Your task to perform on an android device: Clear the shopping cart on walmart.com. Add "logitech g903" to the cart on walmart.com, then select checkout. Image 0: 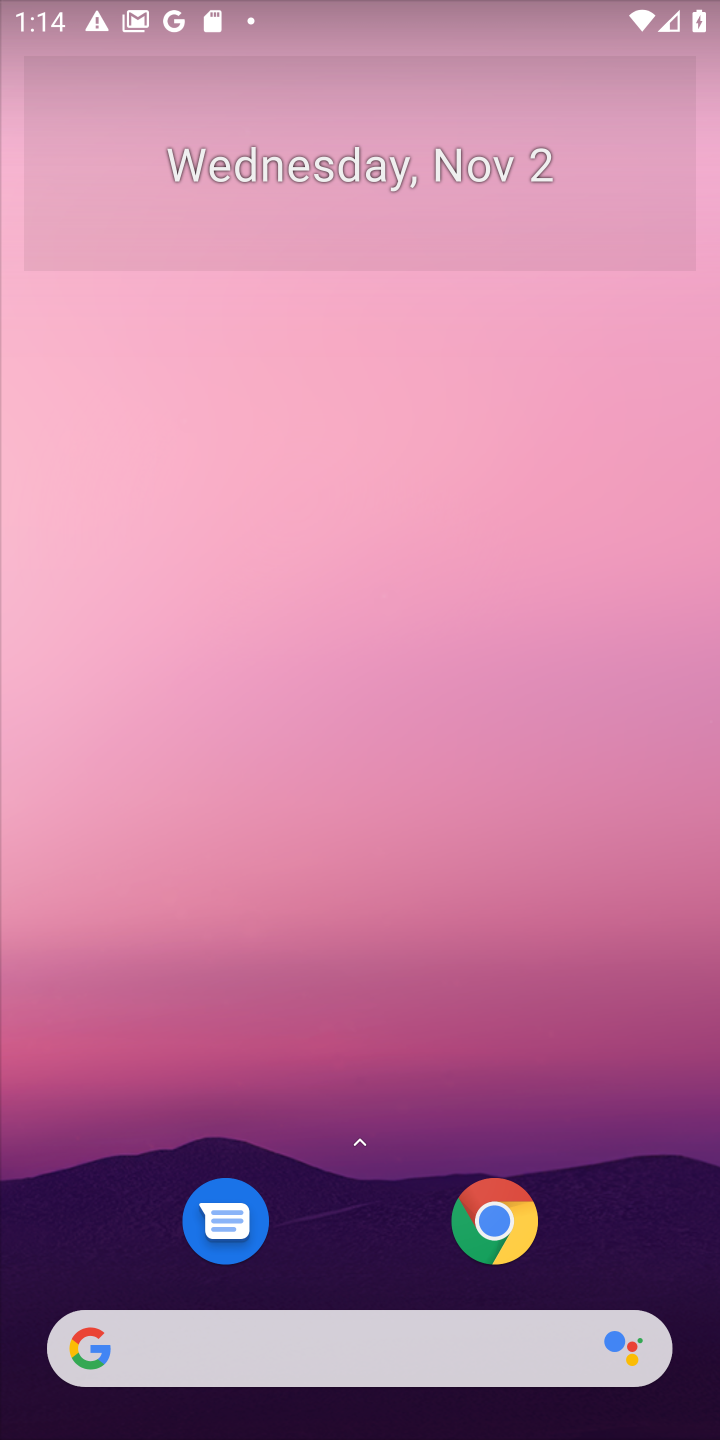
Step 0: click (407, 1335)
Your task to perform on an android device: Clear the shopping cart on walmart.com. Add "logitech g903" to the cart on walmart.com, then select checkout. Image 1: 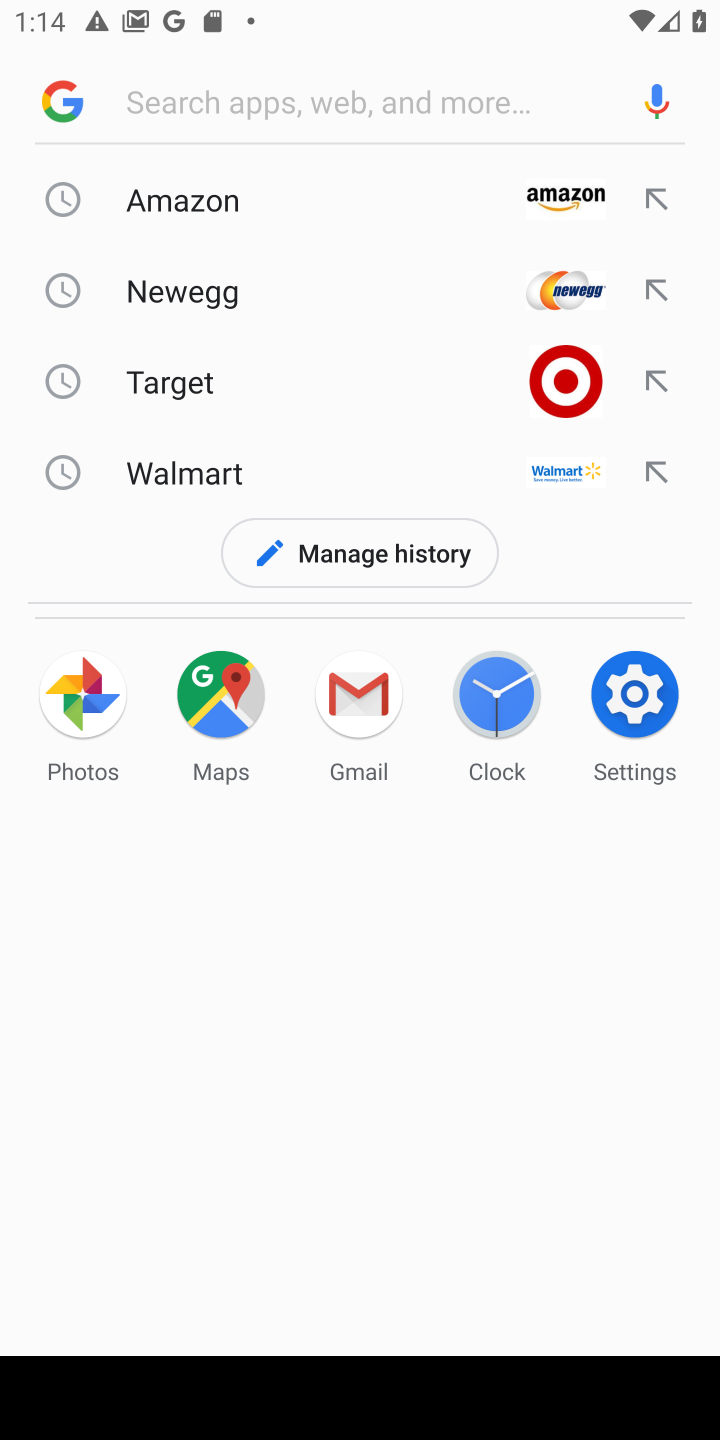
Step 1: click (266, 465)
Your task to perform on an android device: Clear the shopping cart on walmart.com. Add "logitech g903" to the cart on walmart.com, then select checkout. Image 2: 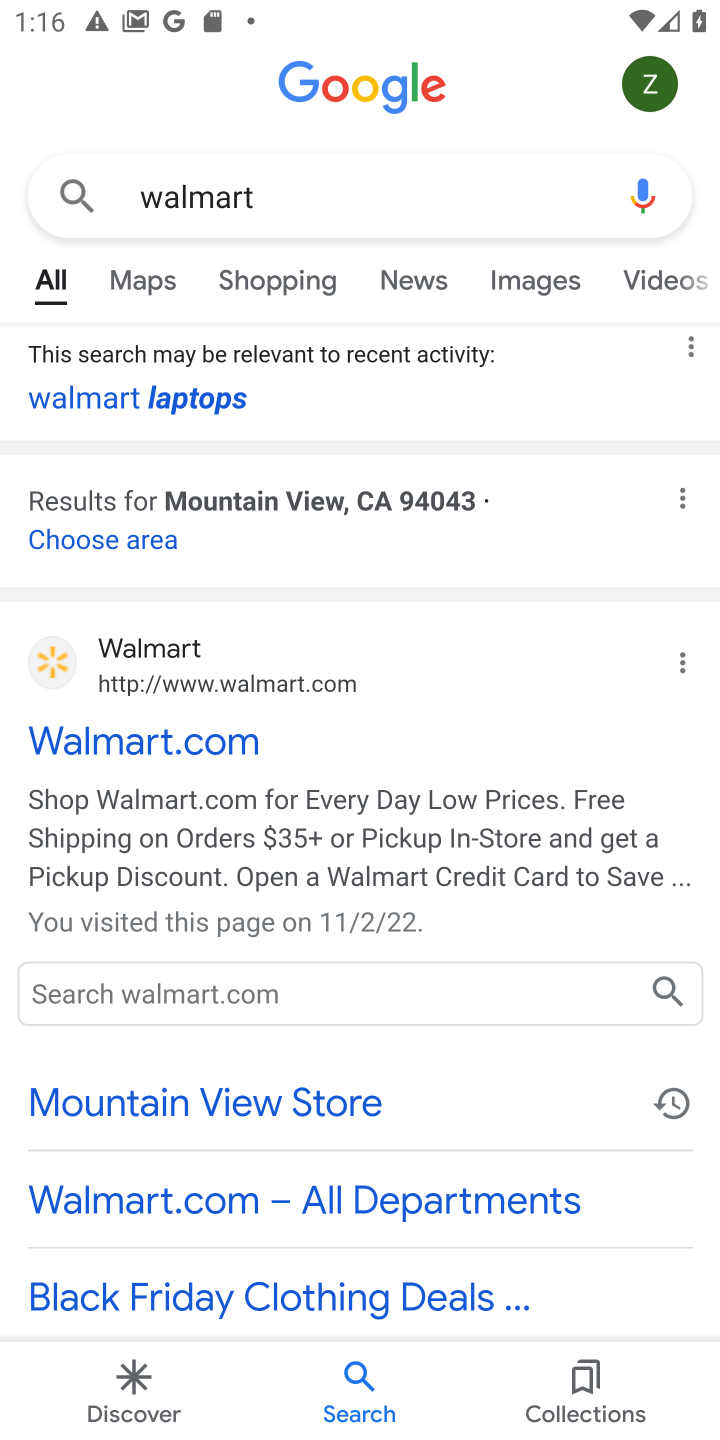
Step 2: click (124, 719)
Your task to perform on an android device: Clear the shopping cart on walmart.com. Add "logitech g903" to the cart on walmart.com, then select checkout. Image 3: 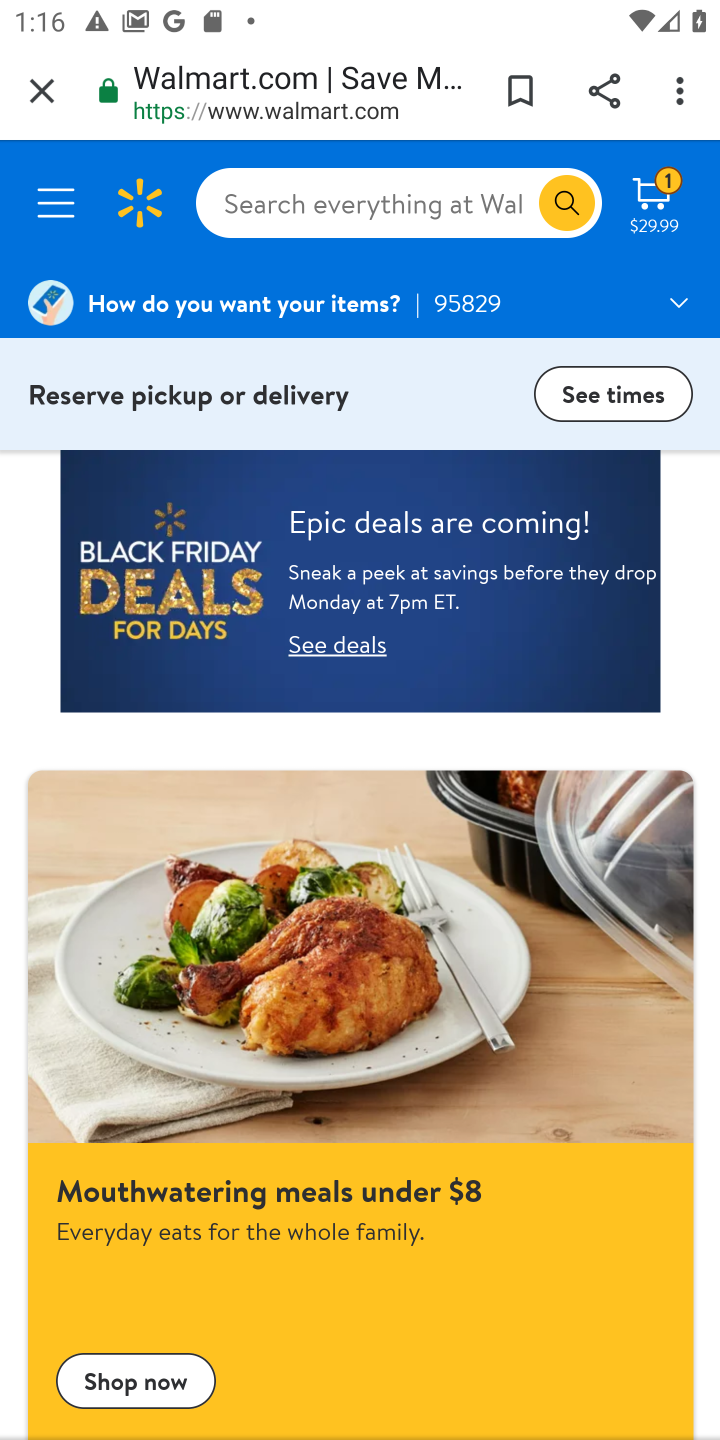
Step 3: click (413, 223)
Your task to perform on an android device: Clear the shopping cart on walmart.com. Add "logitech g903" to the cart on walmart.com, then select checkout. Image 4: 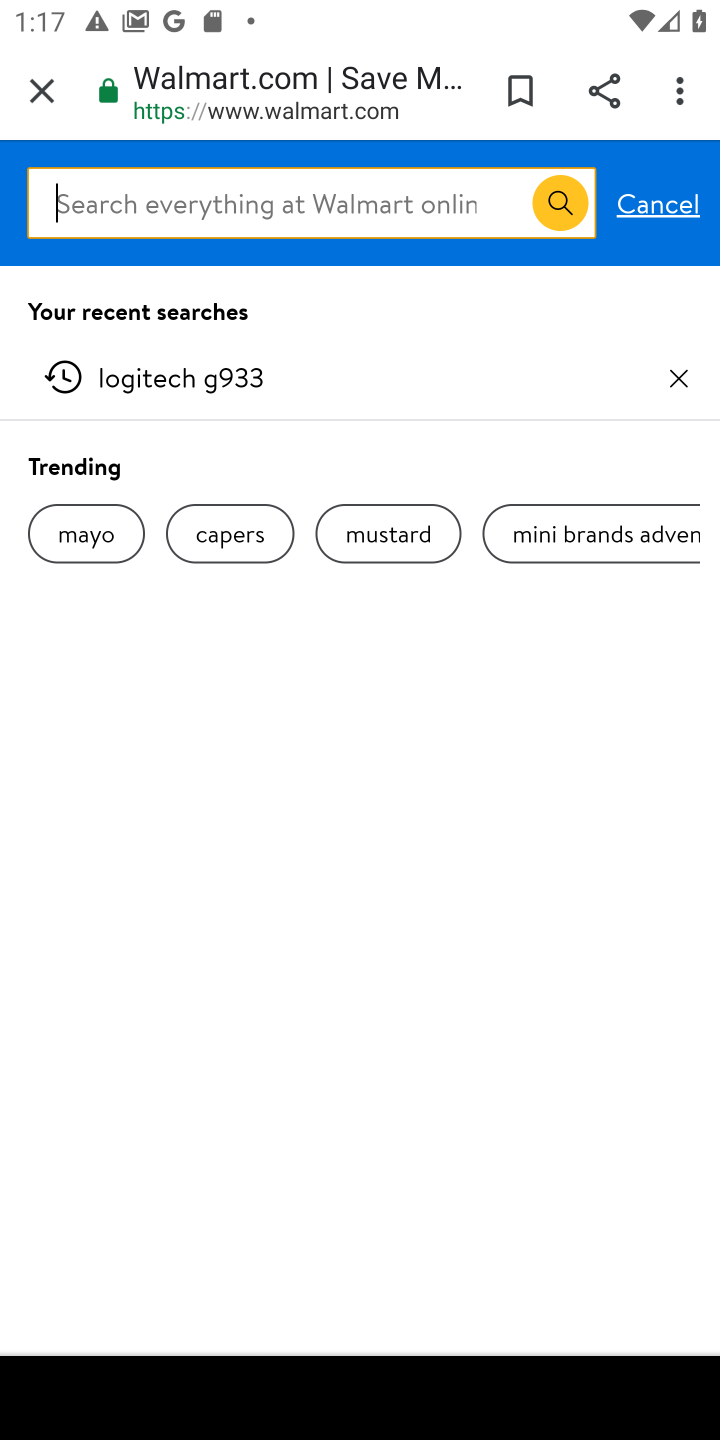
Step 4: type "logitech g903"
Your task to perform on an android device: Clear the shopping cart on walmart.com. Add "logitech g903" to the cart on walmart.com, then select checkout. Image 5: 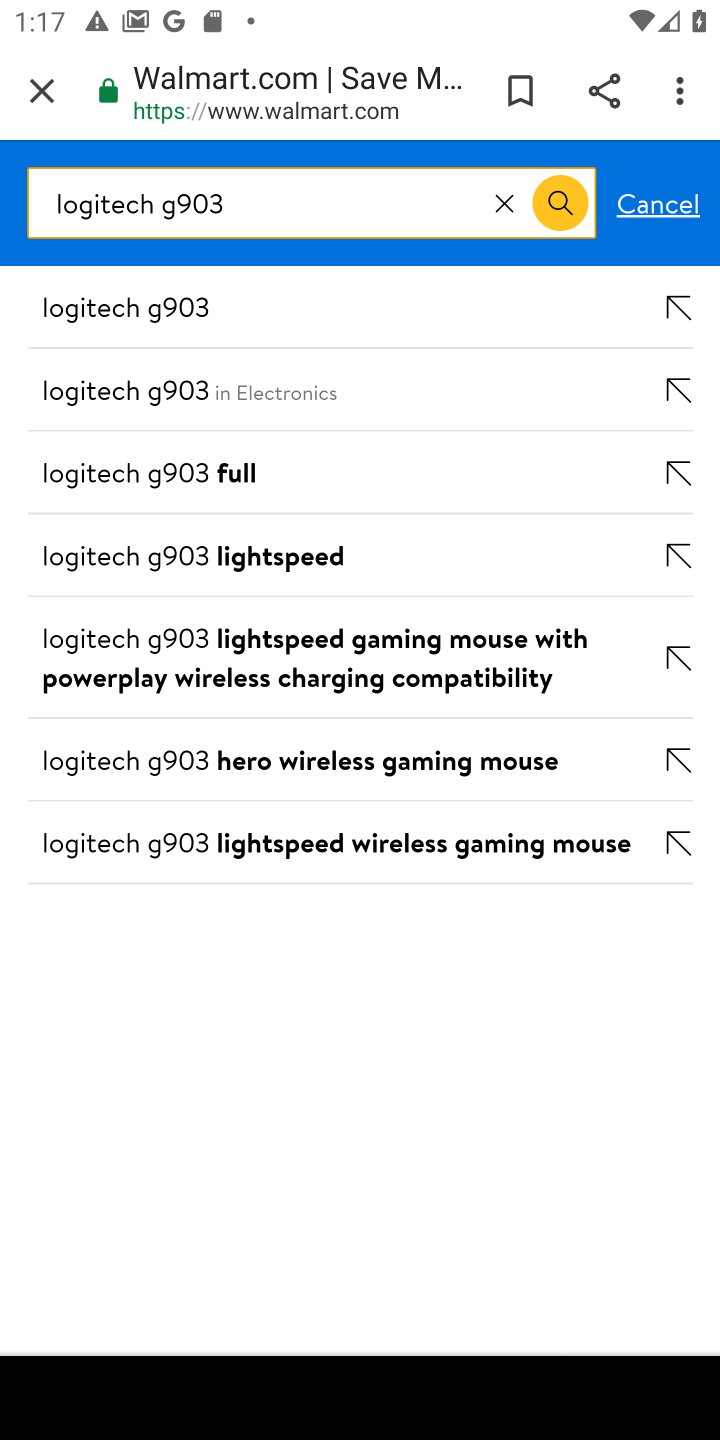
Step 5: click (318, 328)
Your task to perform on an android device: Clear the shopping cart on walmart.com. Add "logitech g903" to the cart on walmart.com, then select checkout. Image 6: 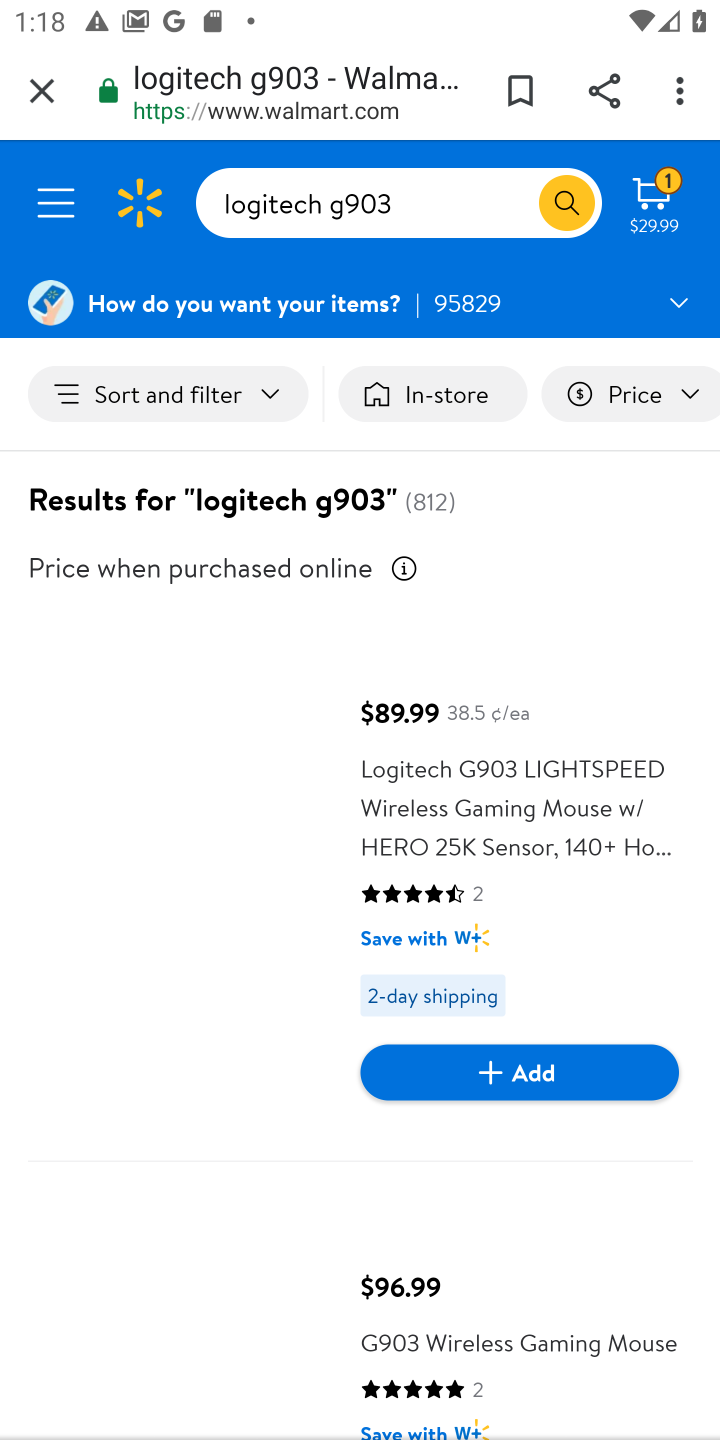
Step 6: click (554, 1067)
Your task to perform on an android device: Clear the shopping cart on walmart.com. Add "logitech g903" to the cart on walmart.com, then select checkout. Image 7: 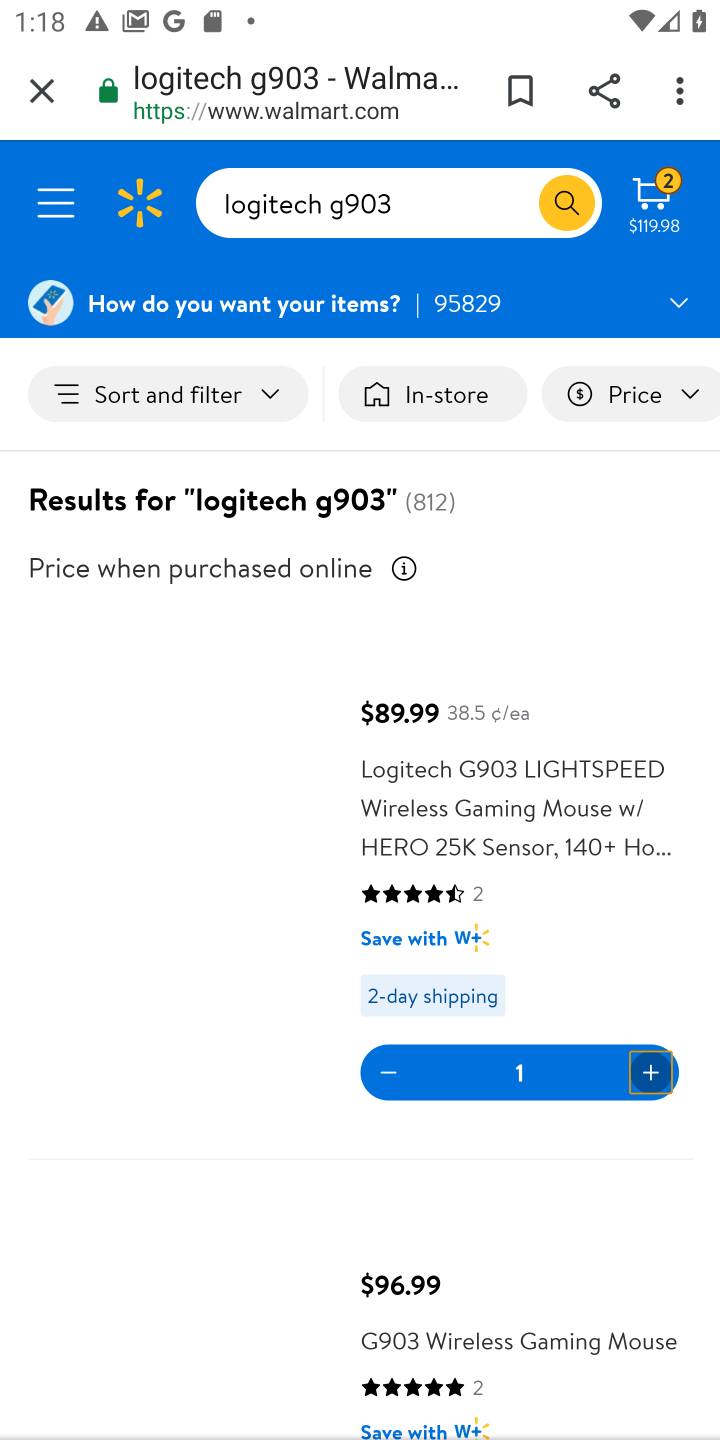
Step 7: task complete